Your task to perform on an android device: turn off airplane mode Image 0: 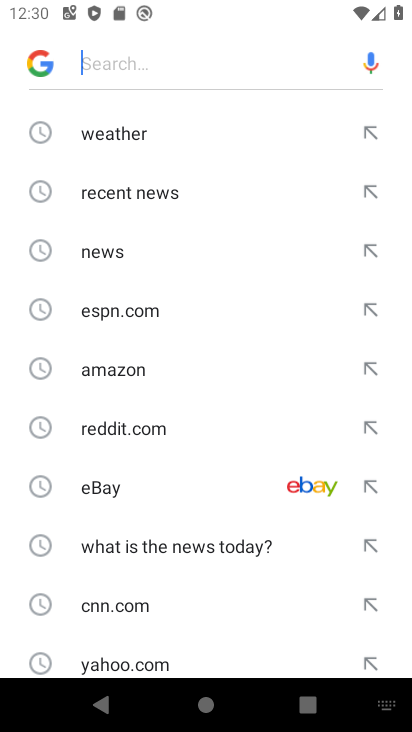
Step 0: press home button
Your task to perform on an android device: turn off airplane mode Image 1: 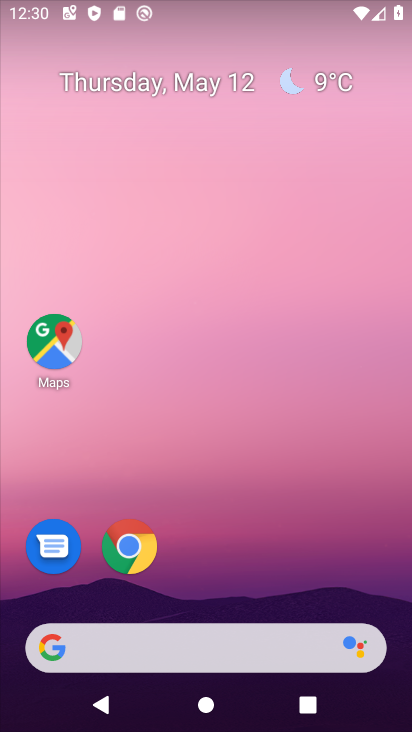
Step 1: drag from (265, 559) to (340, 34)
Your task to perform on an android device: turn off airplane mode Image 2: 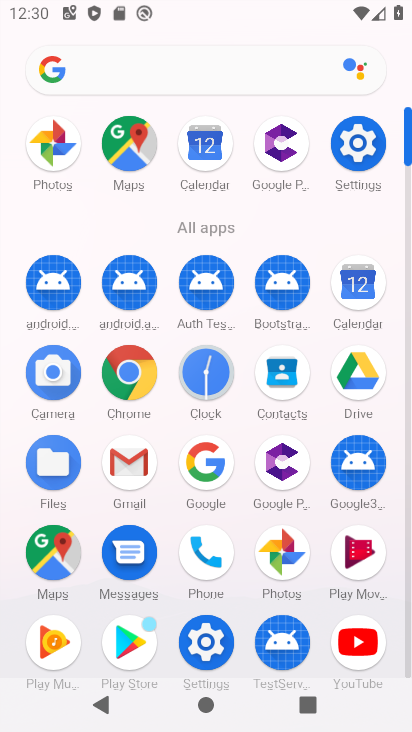
Step 2: click (380, 148)
Your task to perform on an android device: turn off airplane mode Image 3: 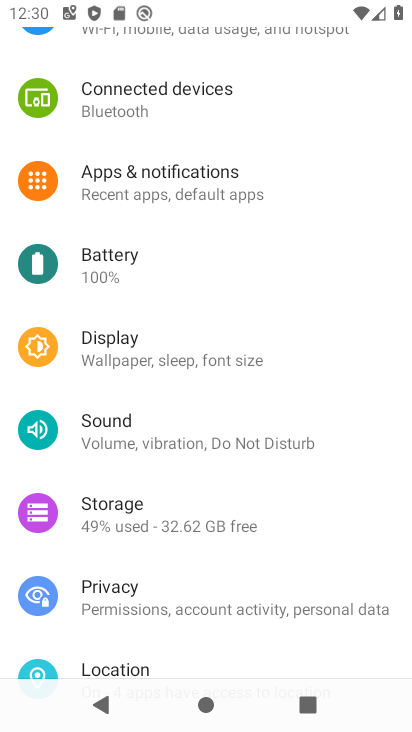
Step 3: drag from (346, 193) to (328, 599)
Your task to perform on an android device: turn off airplane mode Image 4: 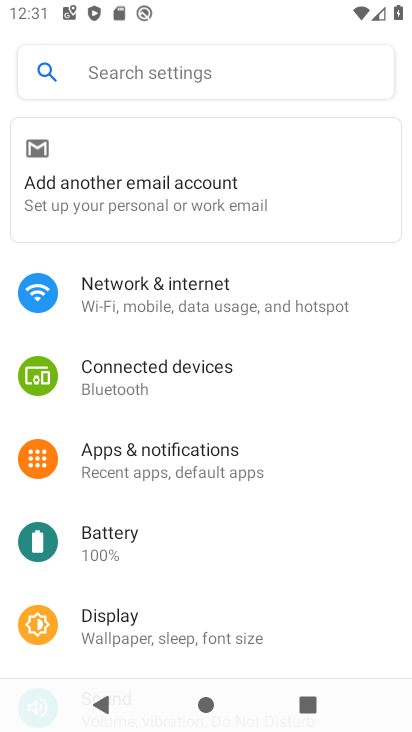
Step 4: click (160, 301)
Your task to perform on an android device: turn off airplane mode Image 5: 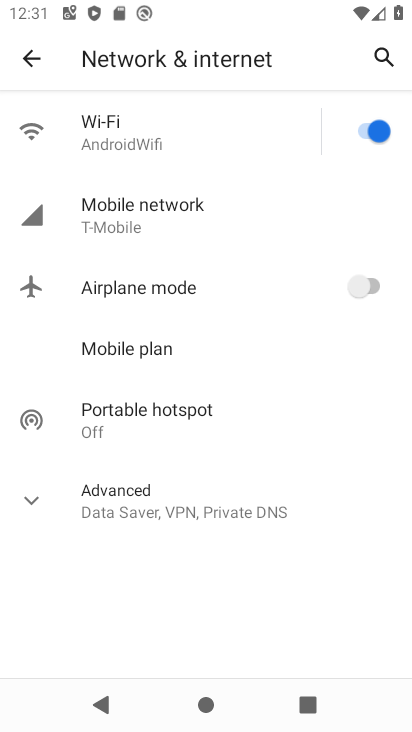
Step 5: click (365, 291)
Your task to perform on an android device: turn off airplane mode Image 6: 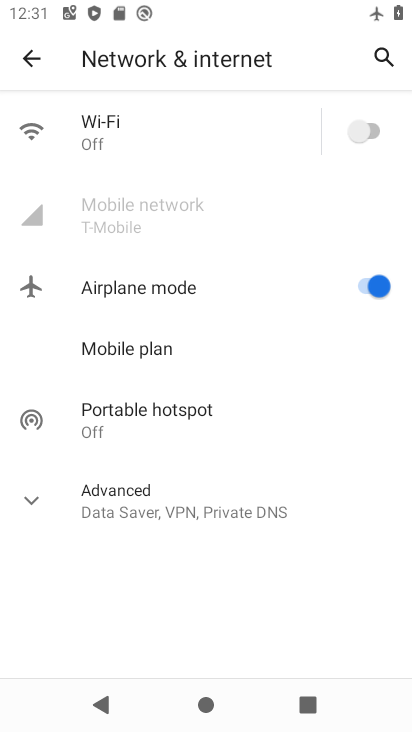
Step 6: click (374, 287)
Your task to perform on an android device: turn off airplane mode Image 7: 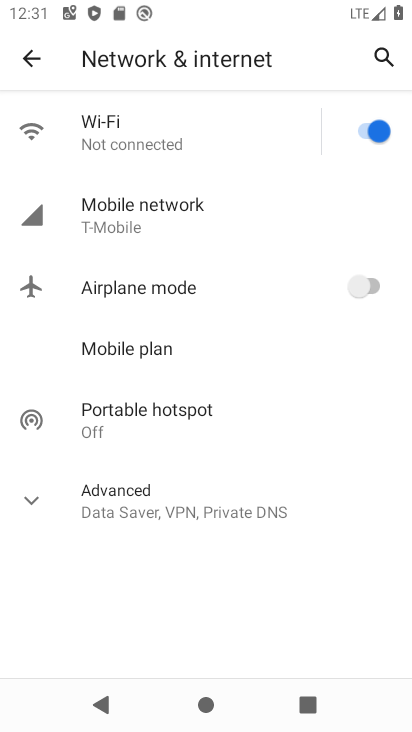
Step 7: task complete